Your task to perform on an android device: turn off javascript in the chrome app Image 0: 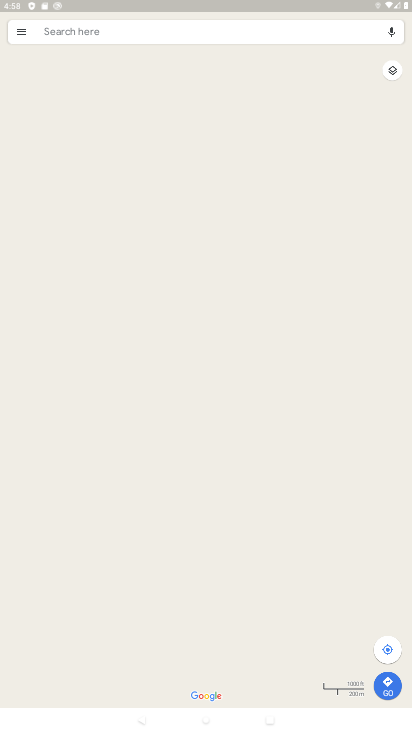
Step 0: drag from (240, 648) to (290, 71)
Your task to perform on an android device: turn off javascript in the chrome app Image 1: 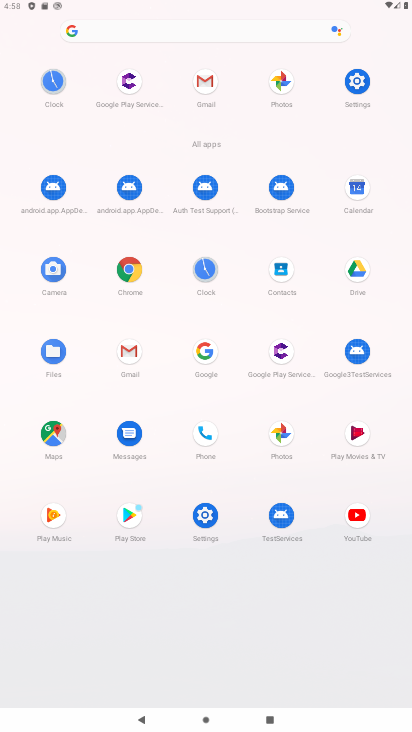
Step 1: click (354, 201)
Your task to perform on an android device: turn off javascript in the chrome app Image 2: 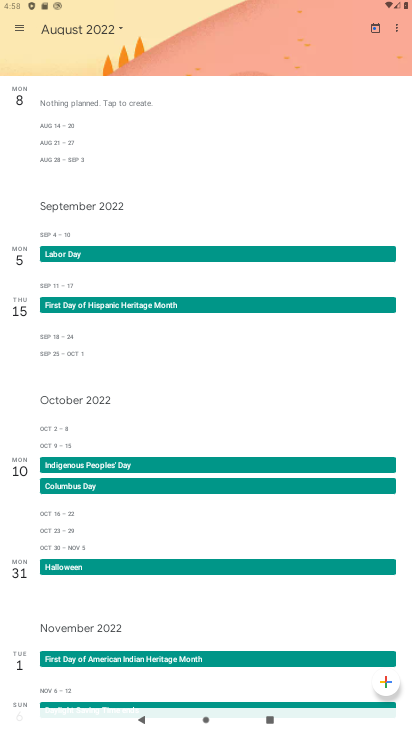
Step 2: press back button
Your task to perform on an android device: turn off javascript in the chrome app Image 3: 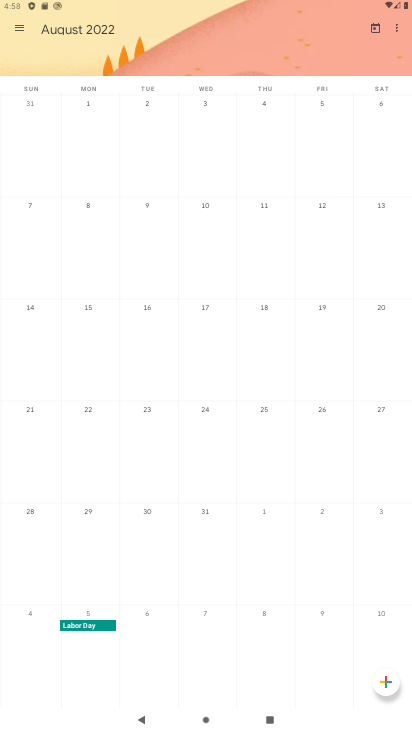
Step 3: press back button
Your task to perform on an android device: turn off javascript in the chrome app Image 4: 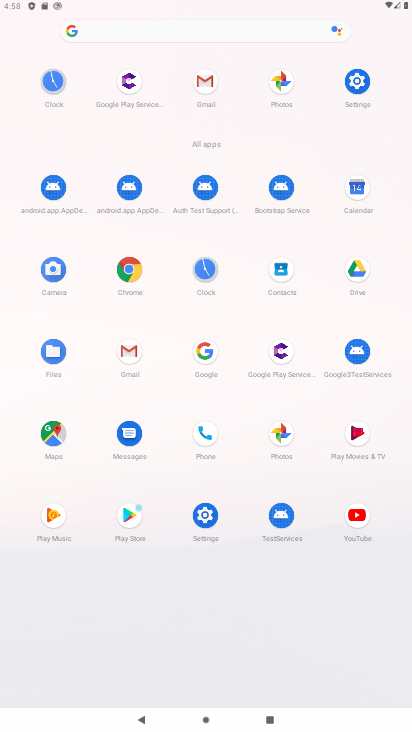
Step 4: click (121, 258)
Your task to perform on an android device: turn off javascript in the chrome app Image 5: 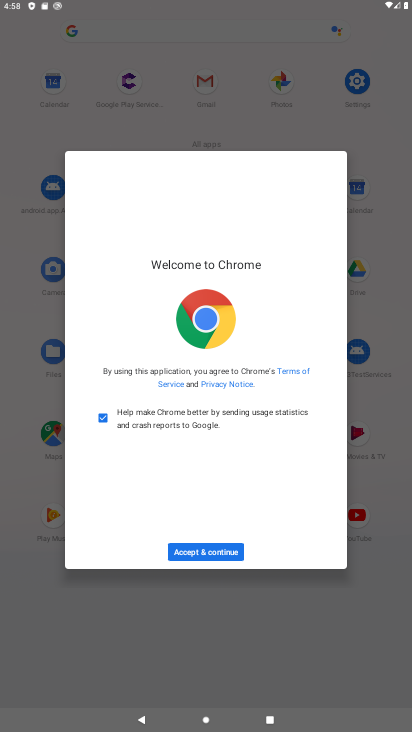
Step 5: click (228, 553)
Your task to perform on an android device: turn off javascript in the chrome app Image 6: 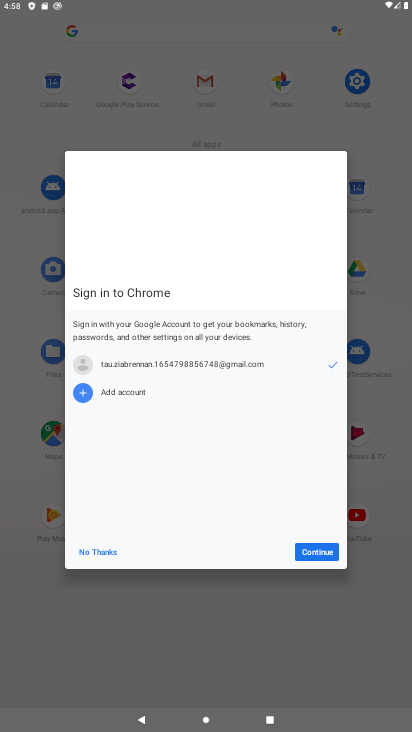
Step 6: click (301, 550)
Your task to perform on an android device: turn off javascript in the chrome app Image 7: 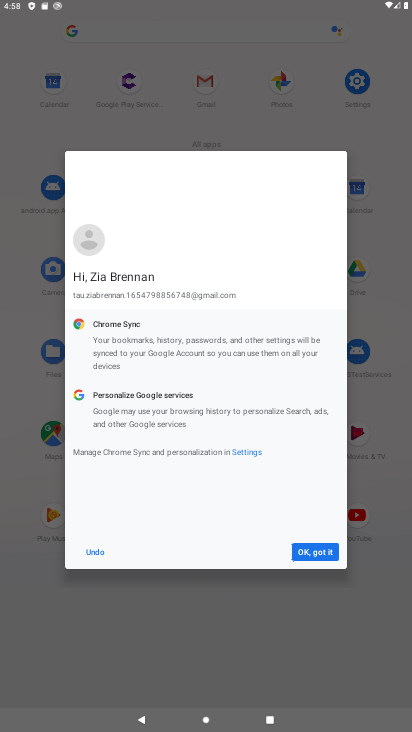
Step 7: click (299, 556)
Your task to perform on an android device: turn off javascript in the chrome app Image 8: 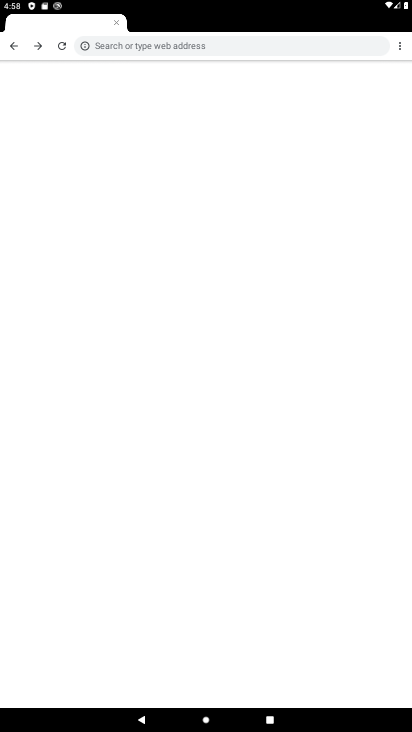
Step 8: drag from (400, 37) to (318, 214)
Your task to perform on an android device: turn off javascript in the chrome app Image 9: 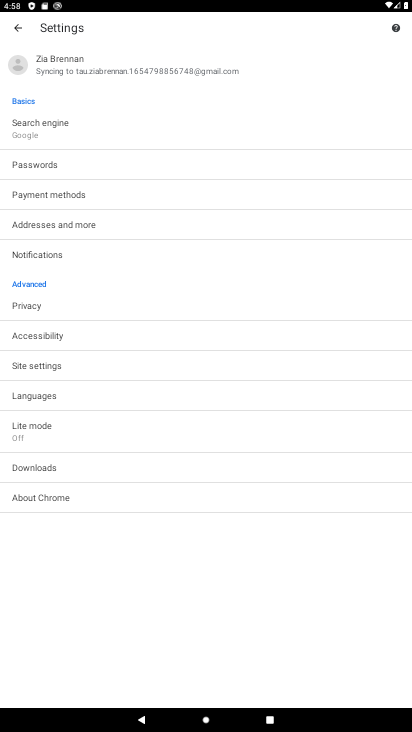
Step 9: click (64, 360)
Your task to perform on an android device: turn off javascript in the chrome app Image 10: 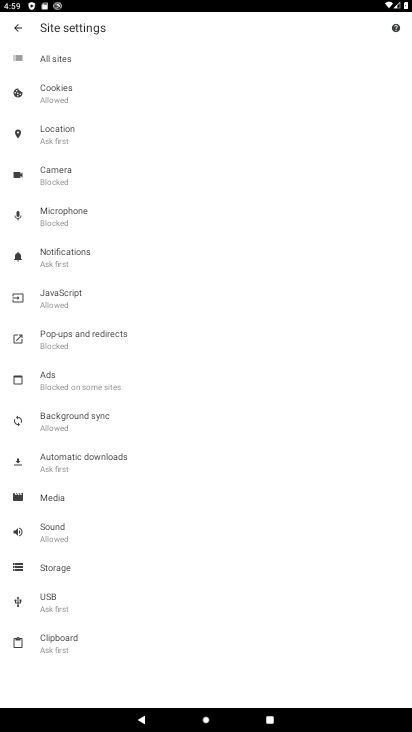
Step 10: click (68, 300)
Your task to perform on an android device: turn off javascript in the chrome app Image 11: 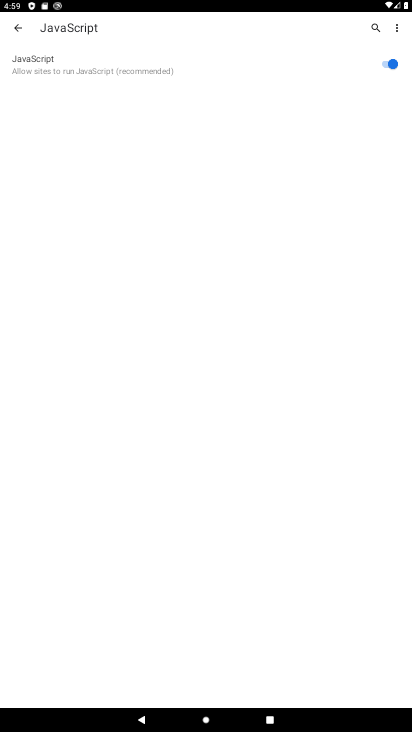
Step 11: click (387, 69)
Your task to perform on an android device: turn off javascript in the chrome app Image 12: 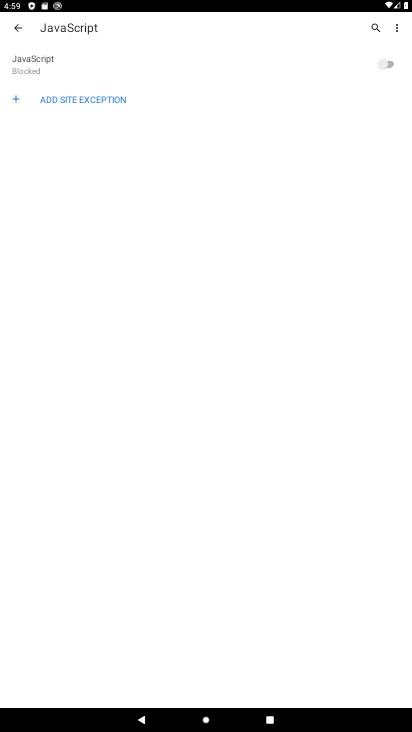
Step 12: task complete